Your task to perform on an android device: Open location settings Image 0: 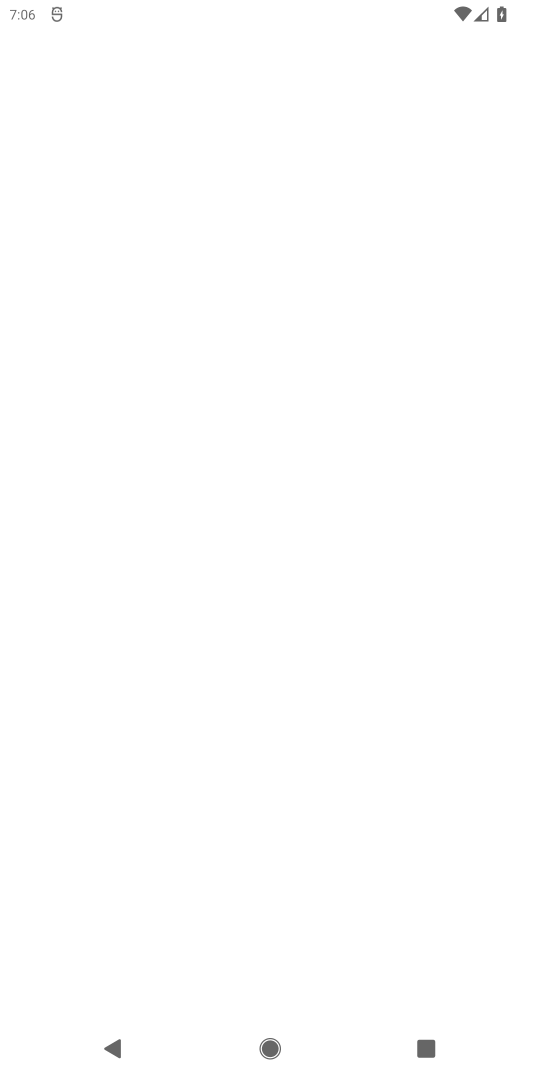
Step 0: press home button
Your task to perform on an android device: Open location settings Image 1: 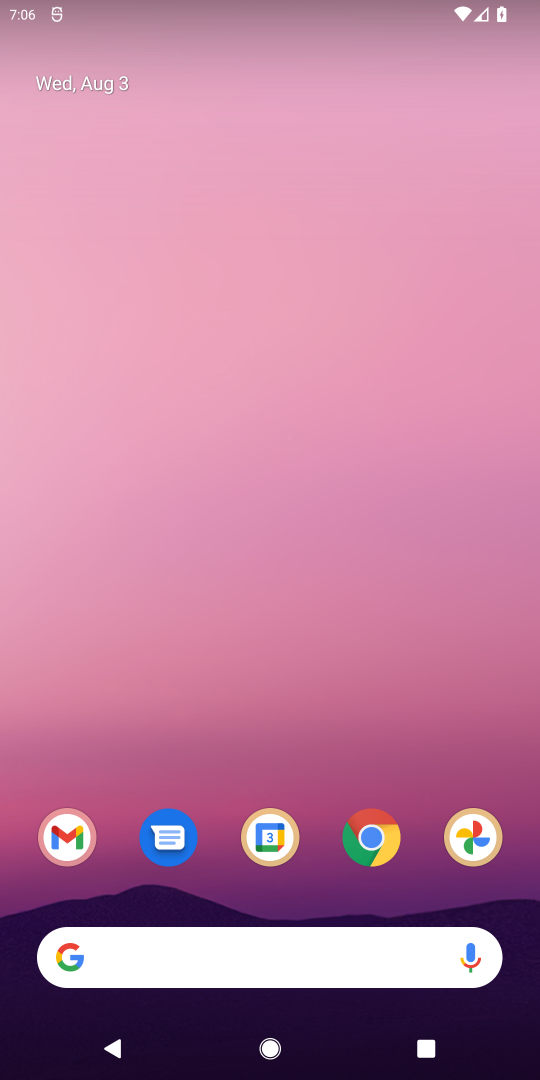
Step 1: drag from (354, 692) to (341, 182)
Your task to perform on an android device: Open location settings Image 2: 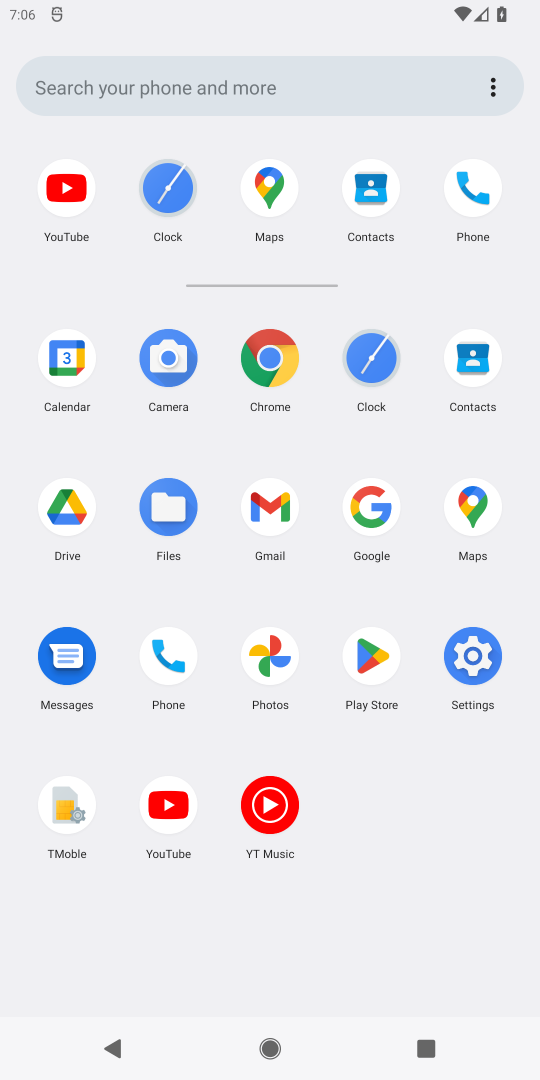
Step 2: click (467, 667)
Your task to perform on an android device: Open location settings Image 3: 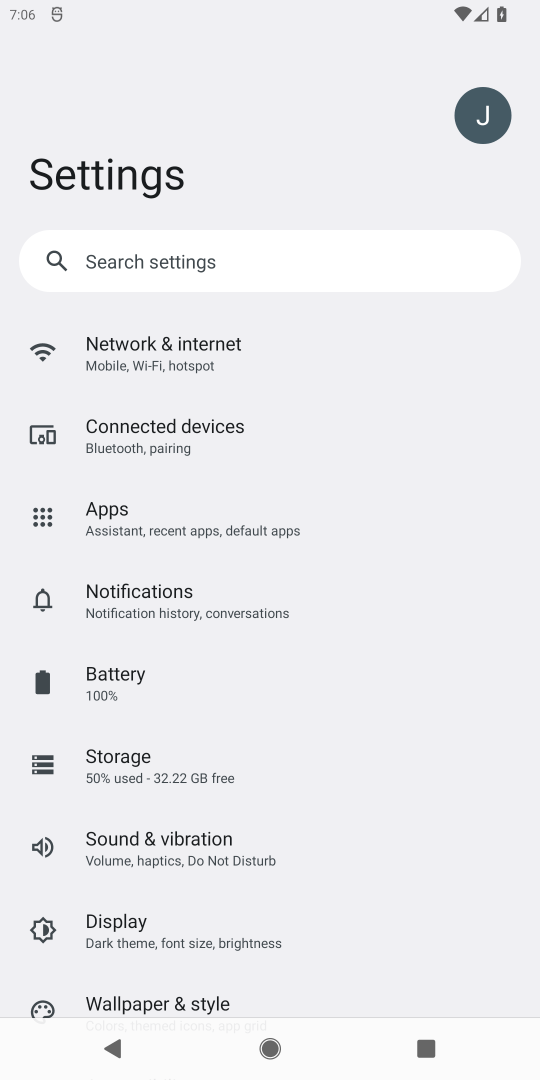
Step 3: drag from (255, 966) to (217, 384)
Your task to perform on an android device: Open location settings Image 4: 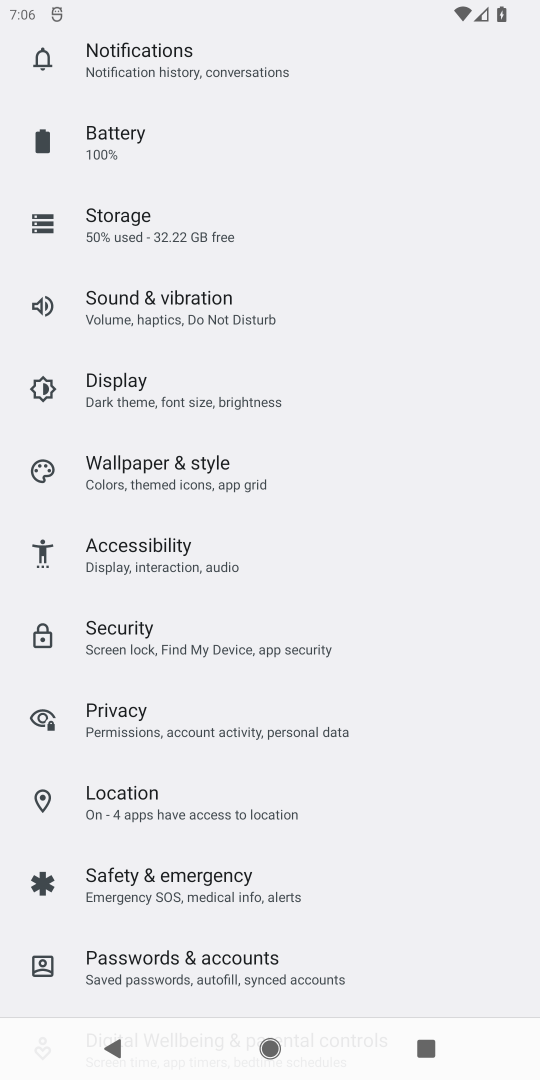
Step 4: click (147, 804)
Your task to perform on an android device: Open location settings Image 5: 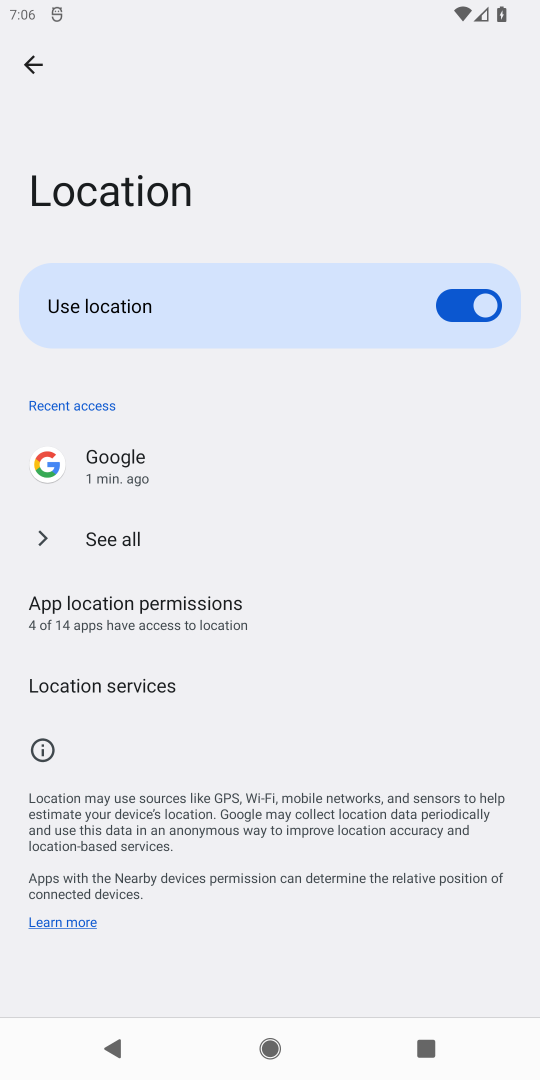
Step 5: task complete